Your task to perform on an android device: Open Google Image 0: 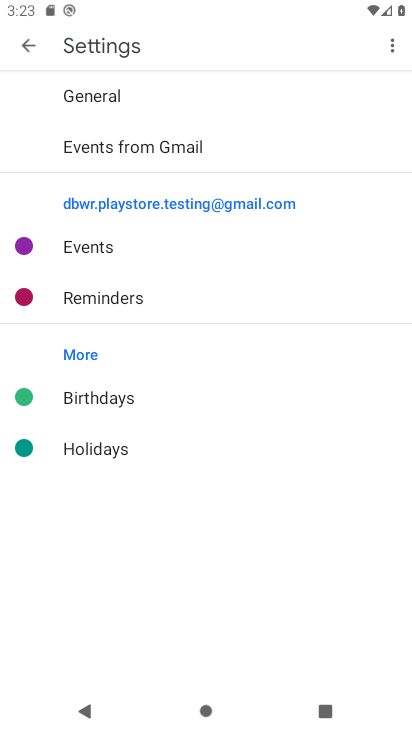
Step 0: press home button
Your task to perform on an android device: Open Google Image 1: 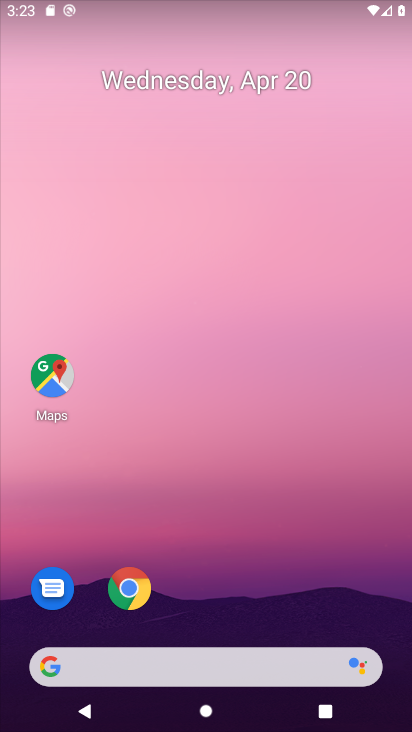
Step 1: drag from (196, 617) to (183, 7)
Your task to perform on an android device: Open Google Image 2: 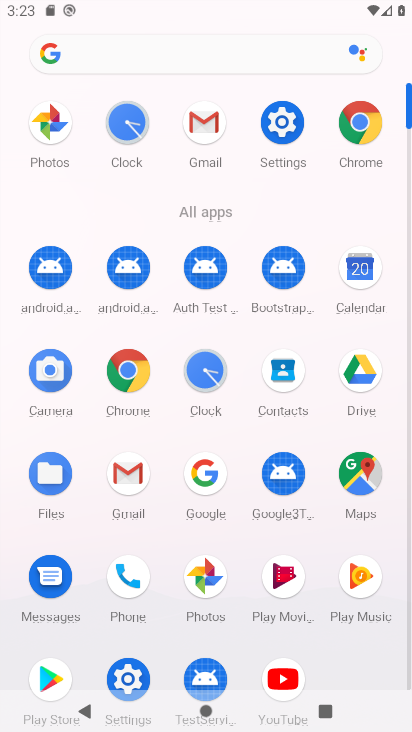
Step 2: click (193, 476)
Your task to perform on an android device: Open Google Image 3: 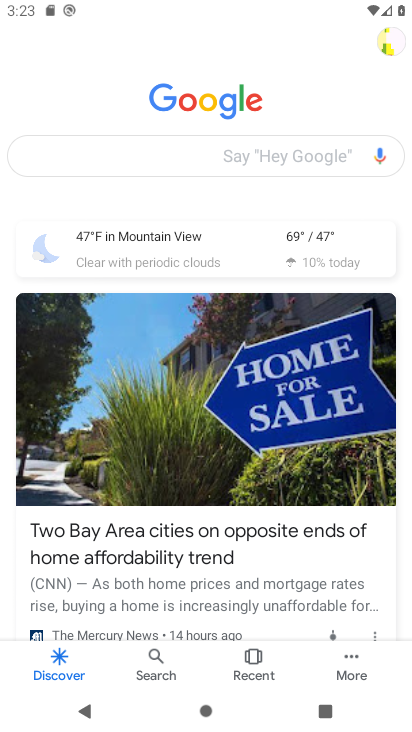
Step 3: task complete